Your task to perform on an android device: Open Amazon Image 0: 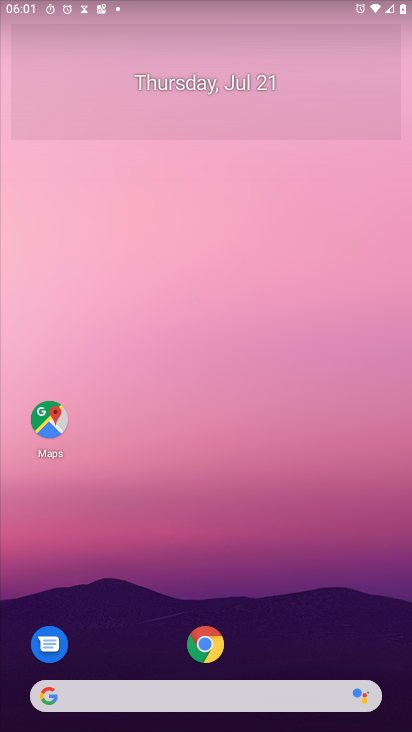
Step 0: press home button
Your task to perform on an android device: Open Amazon Image 1: 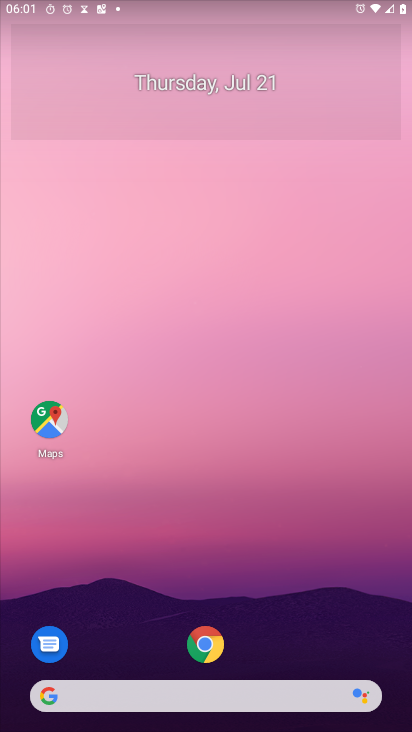
Step 1: click (44, 694)
Your task to perform on an android device: Open Amazon Image 2: 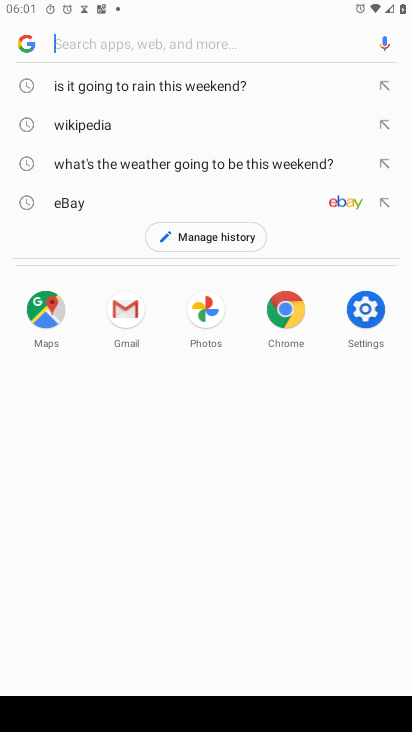
Step 2: type "Amazon"
Your task to perform on an android device: Open Amazon Image 3: 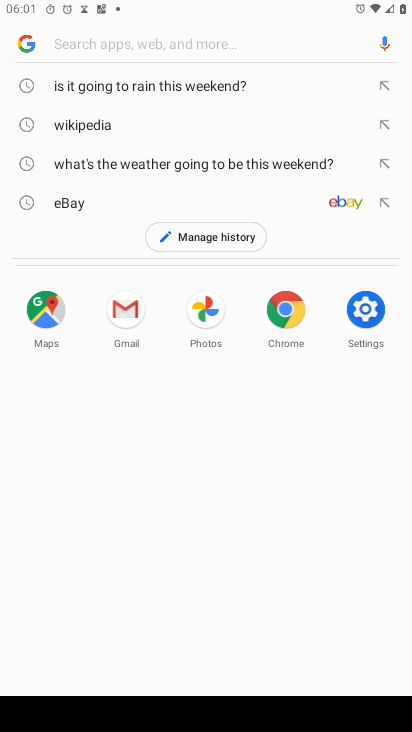
Step 3: click (55, 41)
Your task to perform on an android device: Open Amazon Image 4: 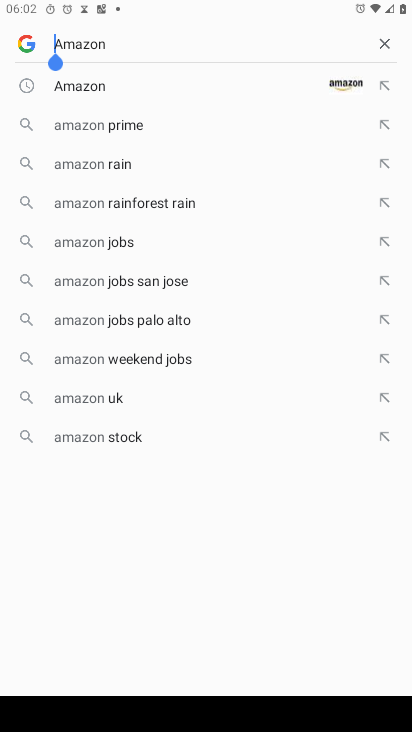
Step 4: click (347, 83)
Your task to perform on an android device: Open Amazon Image 5: 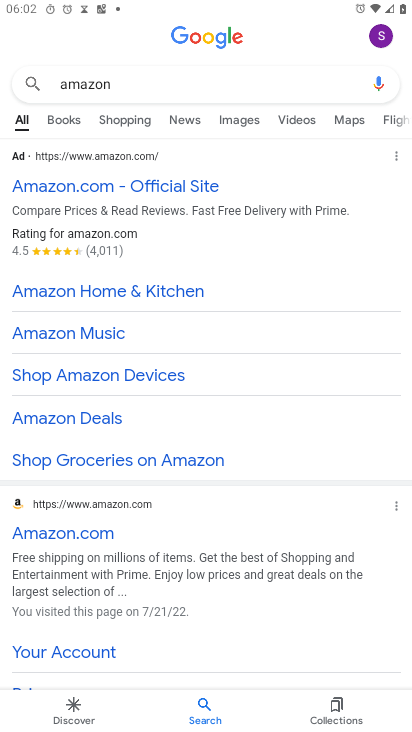
Step 5: click (67, 533)
Your task to perform on an android device: Open Amazon Image 6: 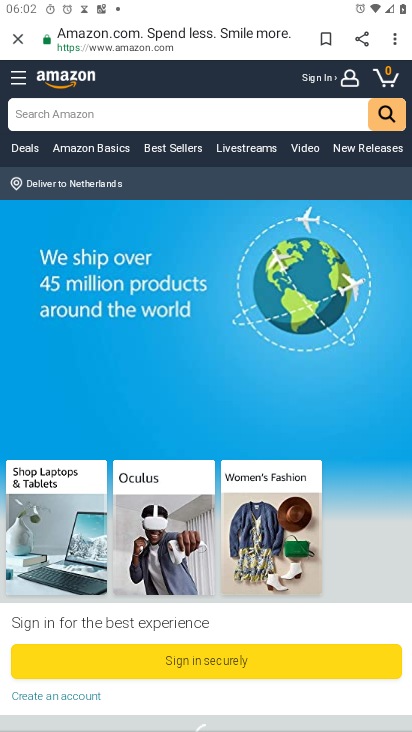
Step 6: task complete